Your task to perform on an android device: Search for seafood restaurants on Google Maps Image 0: 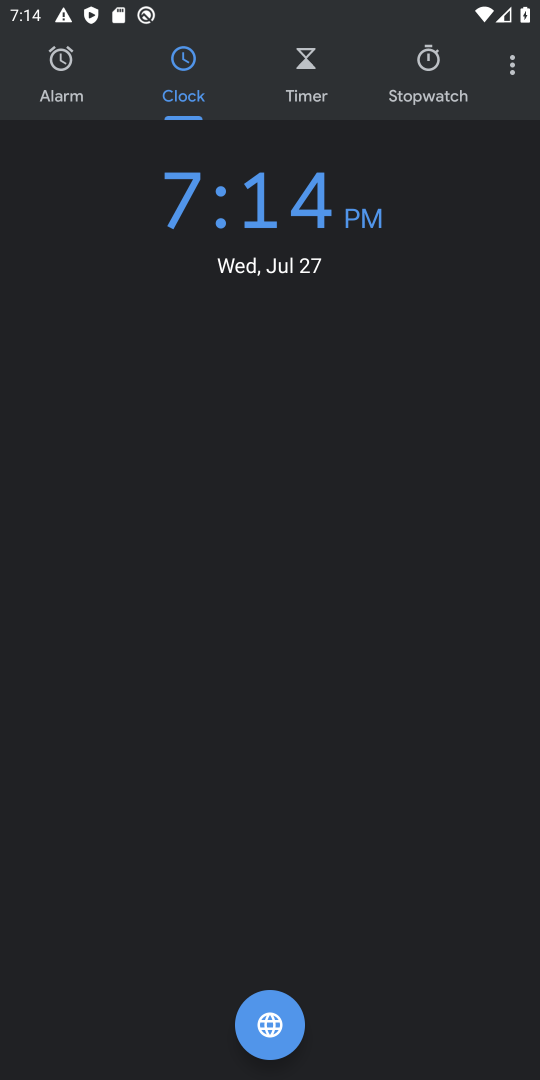
Step 0: press home button
Your task to perform on an android device: Search for seafood restaurants on Google Maps Image 1: 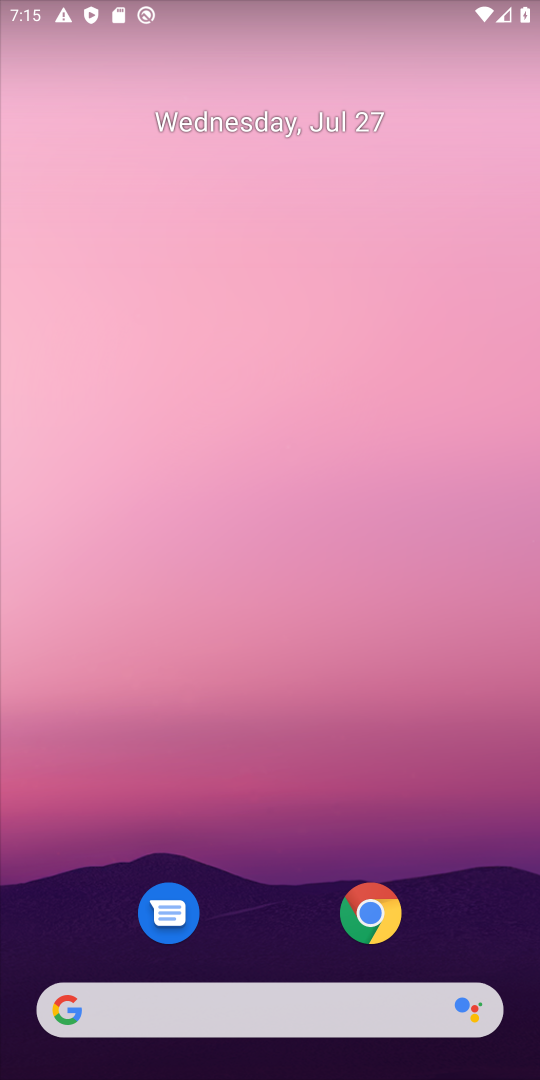
Step 1: drag from (161, 1079) to (189, 396)
Your task to perform on an android device: Search for seafood restaurants on Google Maps Image 2: 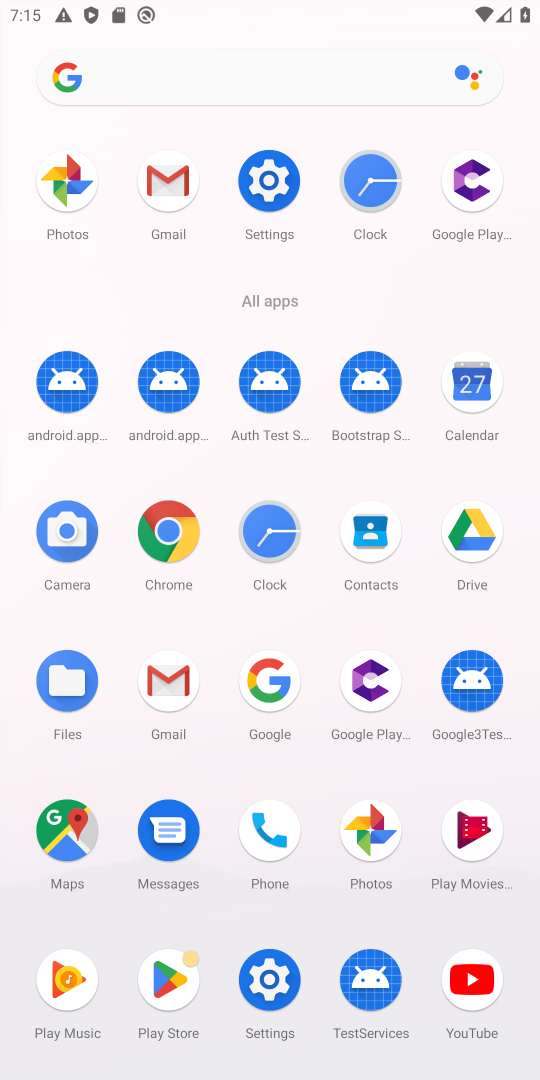
Step 2: click (59, 831)
Your task to perform on an android device: Search for seafood restaurants on Google Maps Image 3: 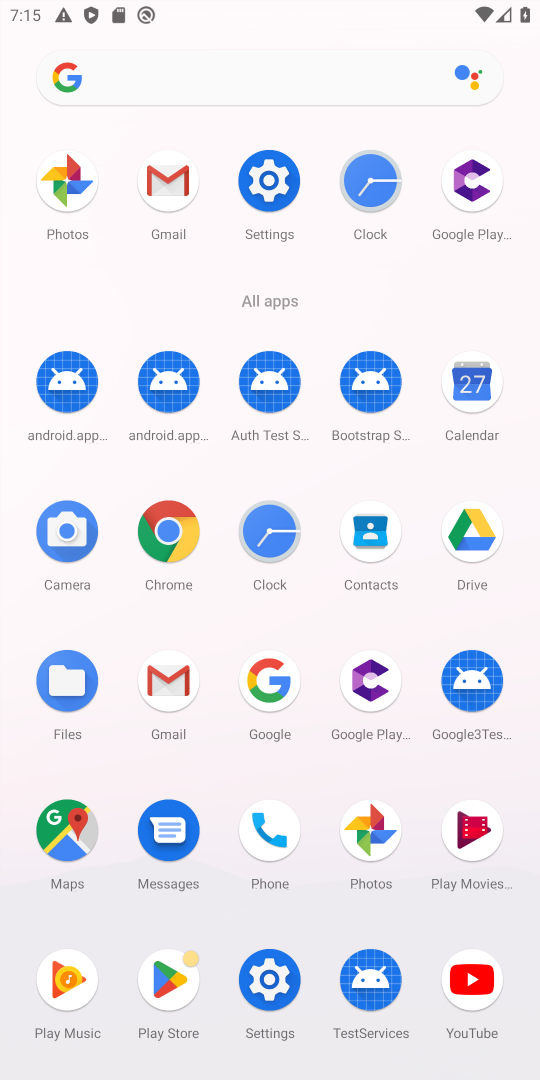
Step 3: click (59, 831)
Your task to perform on an android device: Search for seafood restaurants on Google Maps Image 4: 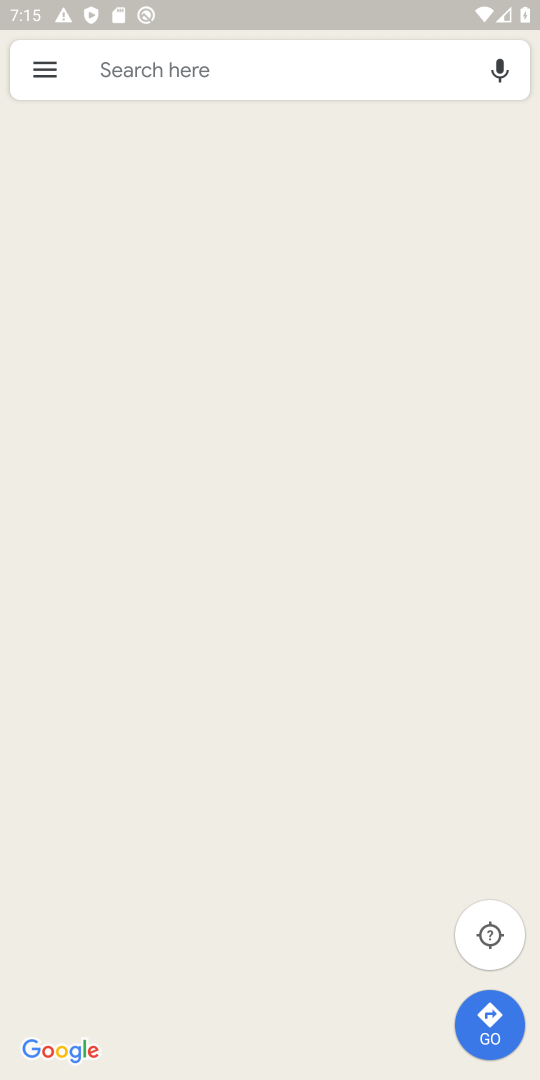
Step 4: click (226, 64)
Your task to perform on an android device: Search for seafood restaurants on Google Maps Image 5: 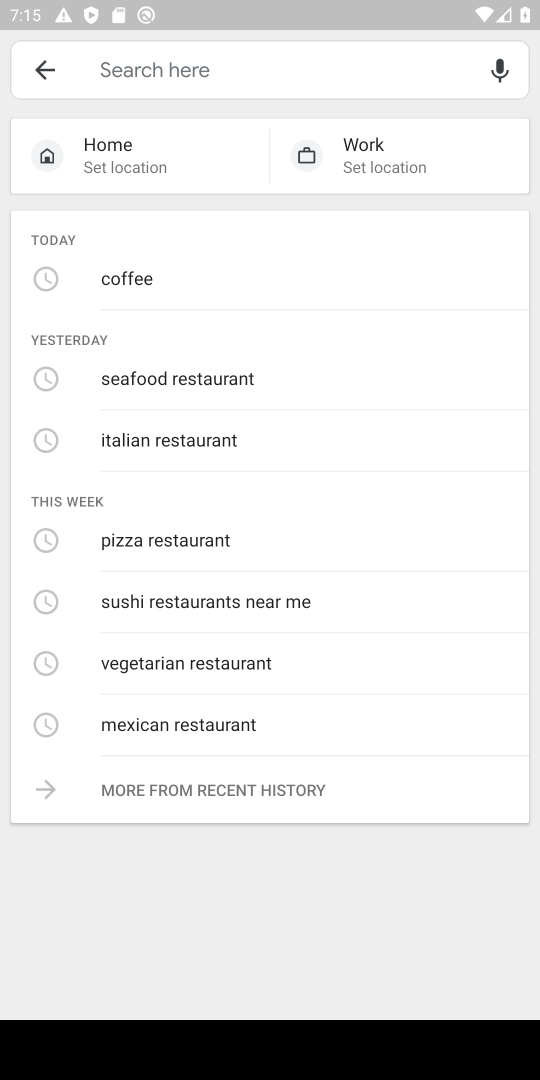
Step 5: type "seafood res"
Your task to perform on an android device: Search for seafood restaurants on Google Maps Image 6: 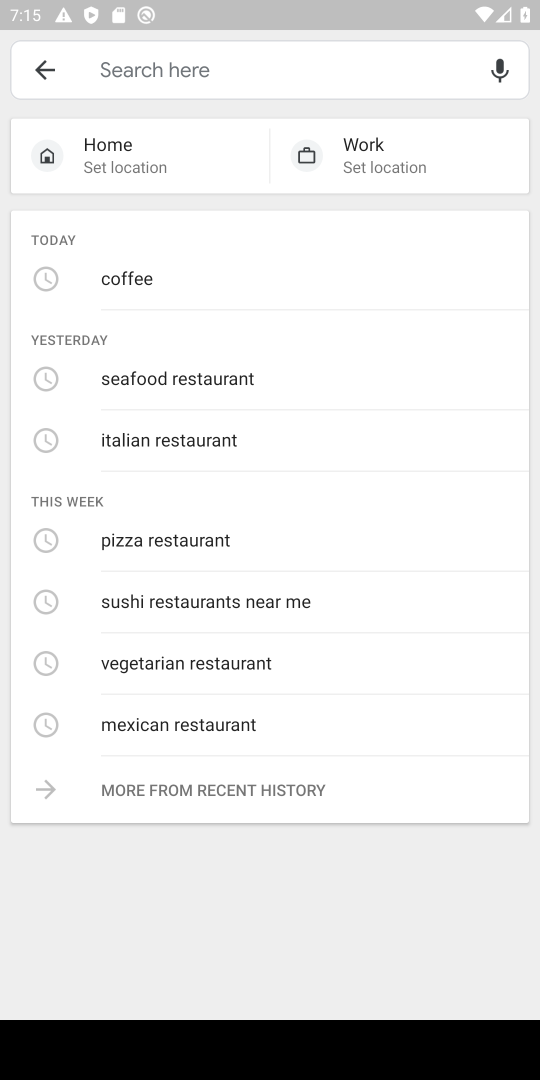
Step 6: click (214, 368)
Your task to perform on an android device: Search for seafood restaurants on Google Maps Image 7: 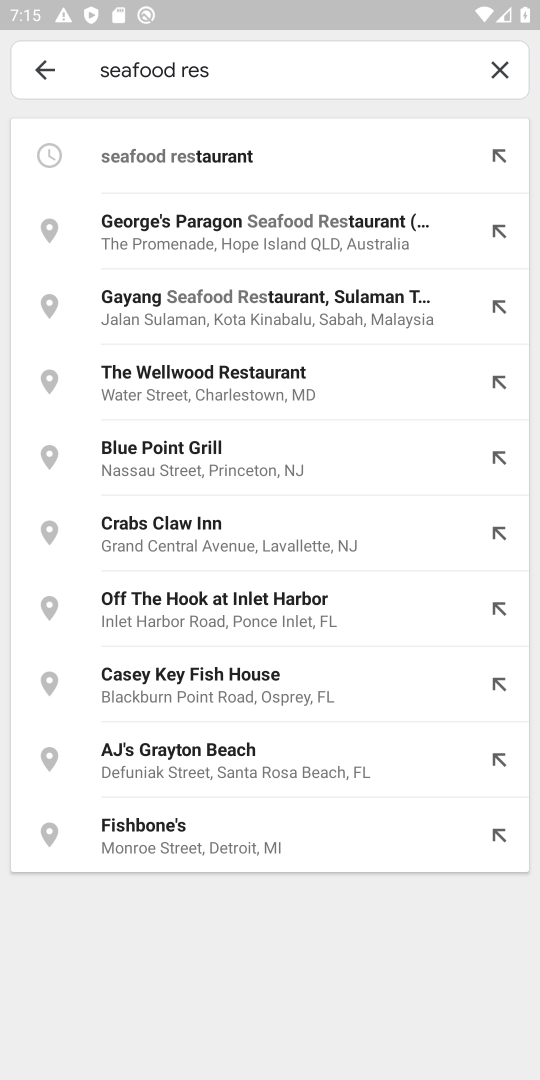
Step 7: click (233, 148)
Your task to perform on an android device: Search for seafood restaurants on Google Maps Image 8: 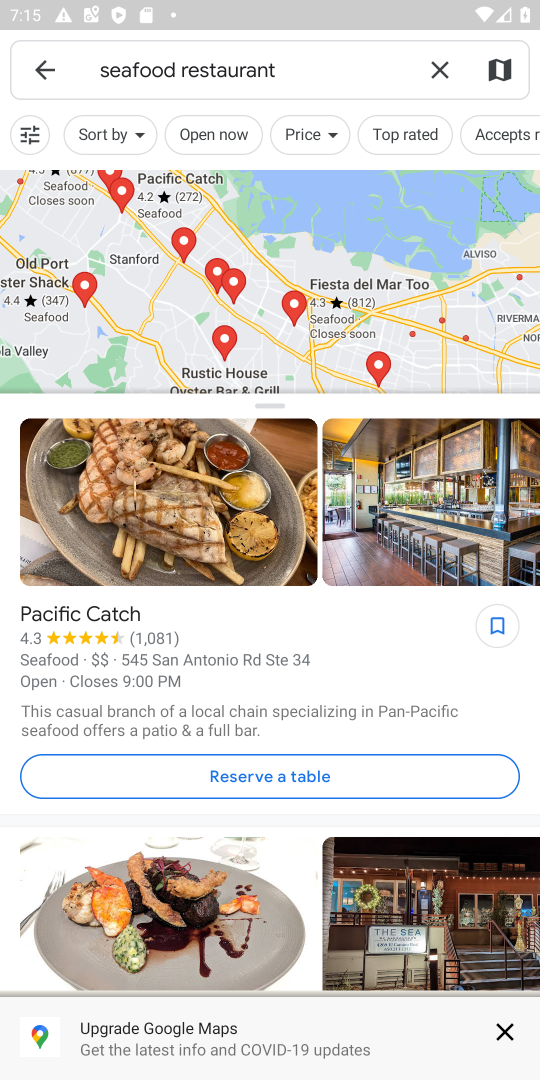
Step 8: task complete